Your task to perform on an android device: Turn on the flashlight Image 0: 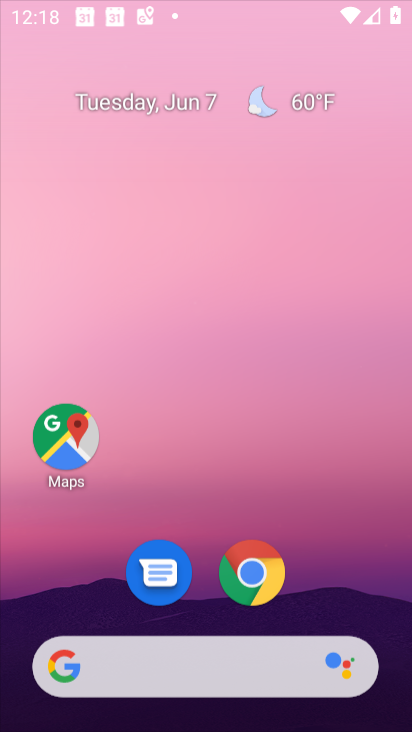
Step 0: press home button
Your task to perform on an android device: Turn on the flashlight Image 1: 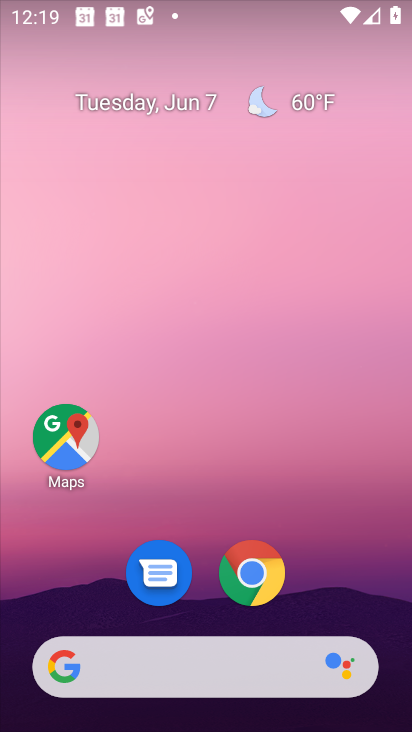
Step 1: task complete